Your task to perform on an android device: Open Chrome and go to the settings page Image 0: 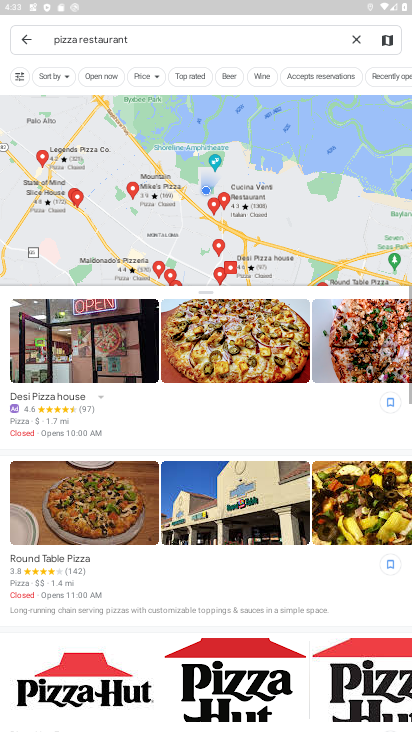
Step 0: press home button
Your task to perform on an android device: Open Chrome and go to the settings page Image 1: 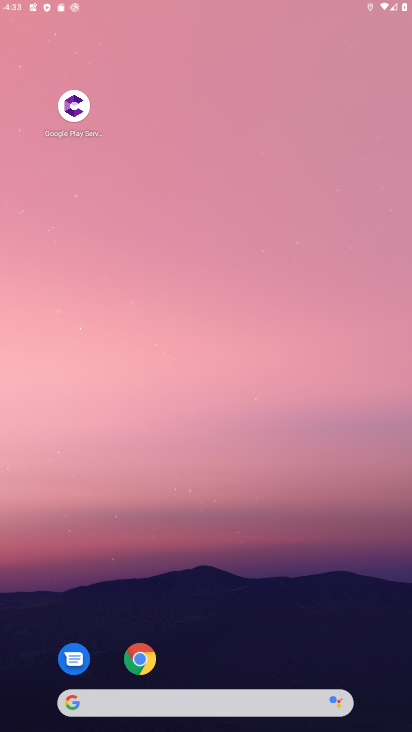
Step 1: drag from (184, 677) to (284, 11)
Your task to perform on an android device: Open Chrome and go to the settings page Image 2: 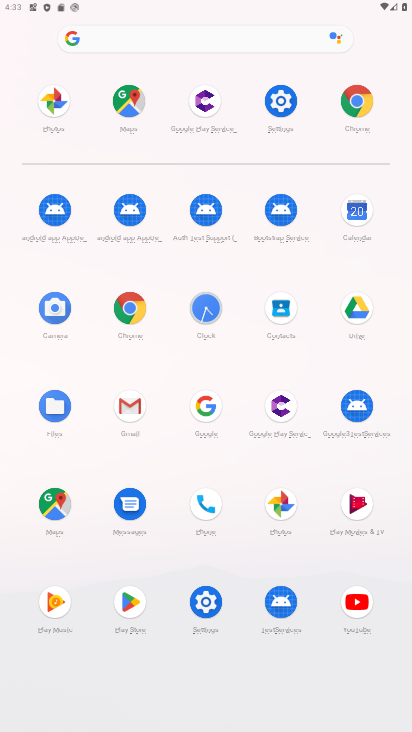
Step 2: click (130, 308)
Your task to perform on an android device: Open Chrome and go to the settings page Image 3: 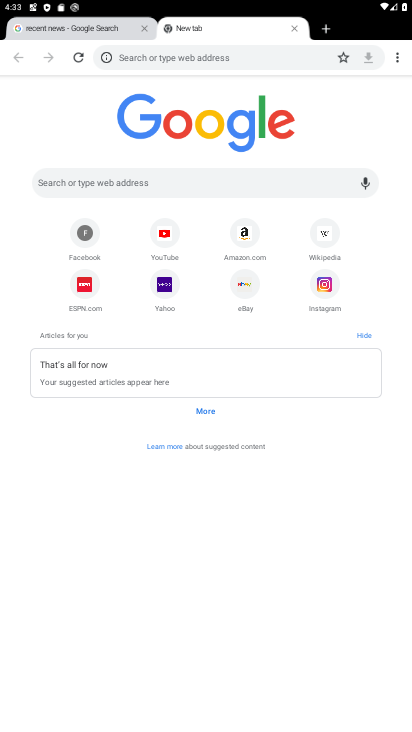
Step 3: task complete